Your task to perform on an android device: delete browsing data in the chrome app Image 0: 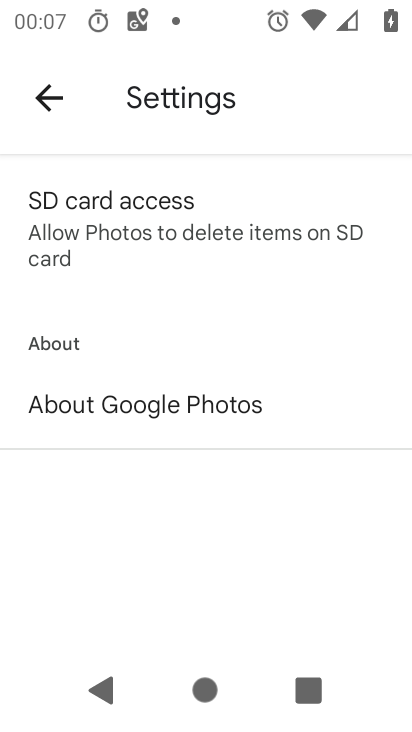
Step 0: press home button
Your task to perform on an android device: delete browsing data in the chrome app Image 1: 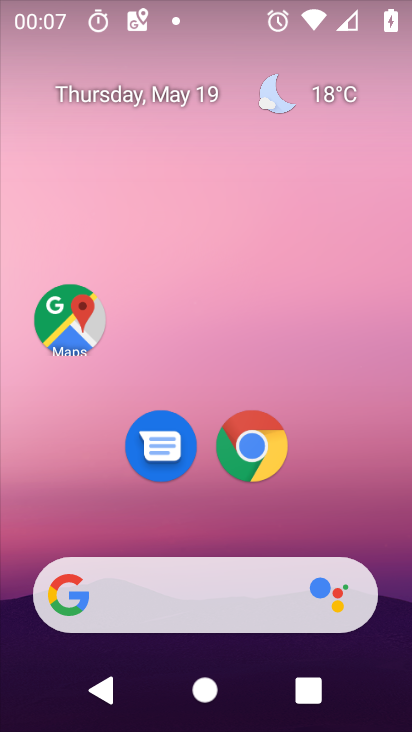
Step 1: click (242, 462)
Your task to perform on an android device: delete browsing data in the chrome app Image 2: 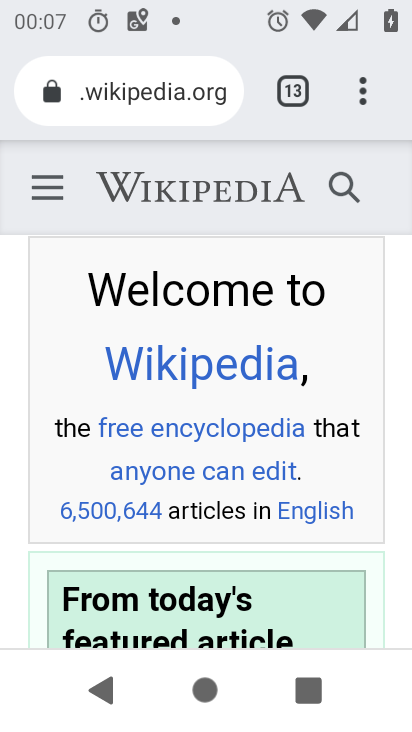
Step 2: drag from (364, 98) to (287, 476)
Your task to perform on an android device: delete browsing data in the chrome app Image 3: 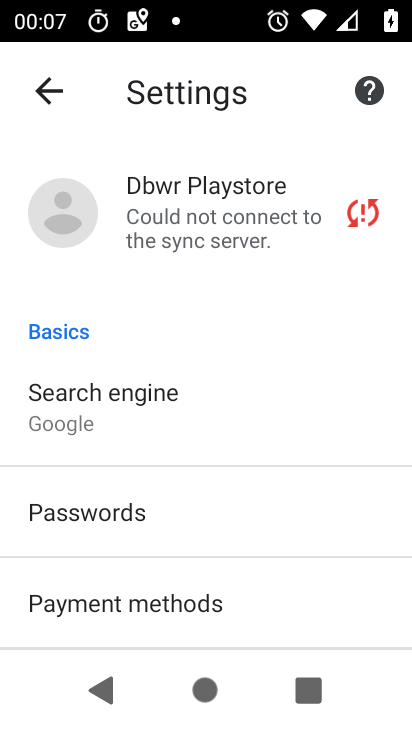
Step 3: drag from (196, 548) to (271, 303)
Your task to perform on an android device: delete browsing data in the chrome app Image 4: 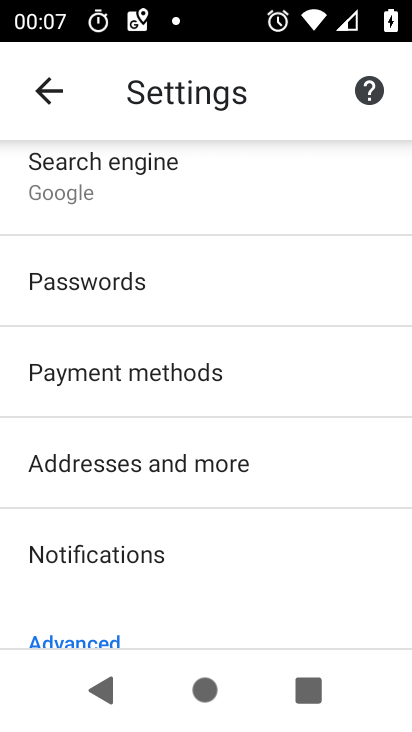
Step 4: drag from (171, 561) to (255, 283)
Your task to perform on an android device: delete browsing data in the chrome app Image 5: 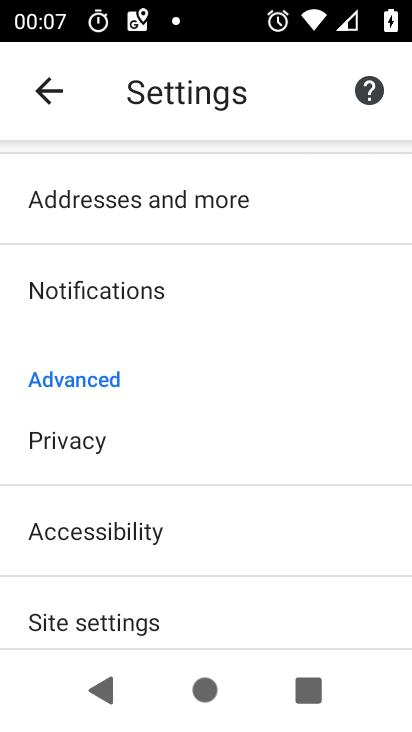
Step 5: click (87, 441)
Your task to perform on an android device: delete browsing data in the chrome app Image 6: 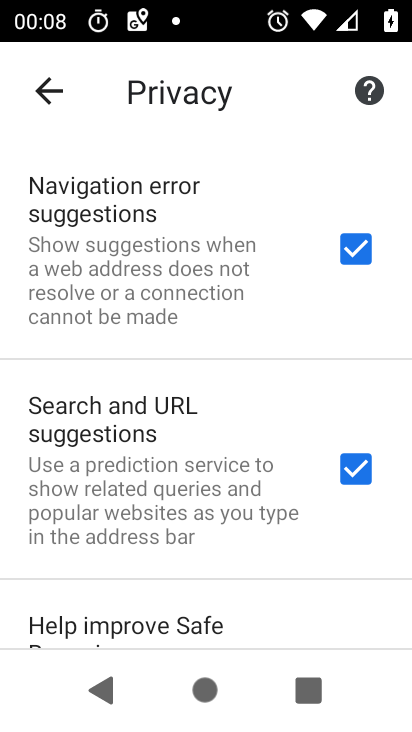
Step 6: drag from (156, 580) to (287, 242)
Your task to perform on an android device: delete browsing data in the chrome app Image 7: 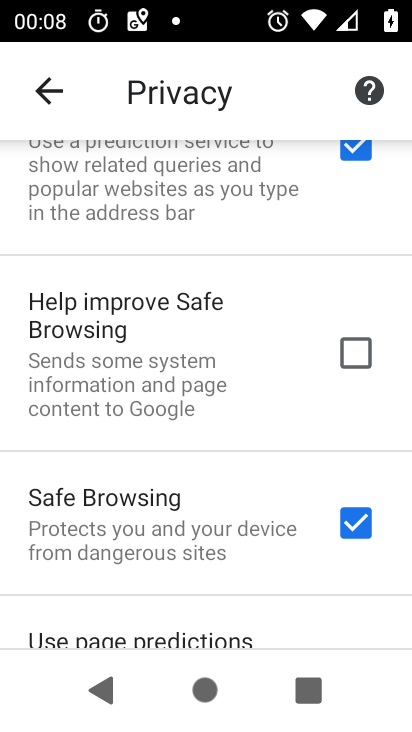
Step 7: drag from (207, 621) to (317, 196)
Your task to perform on an android device: delete browsing data in the chrome app Image 8: 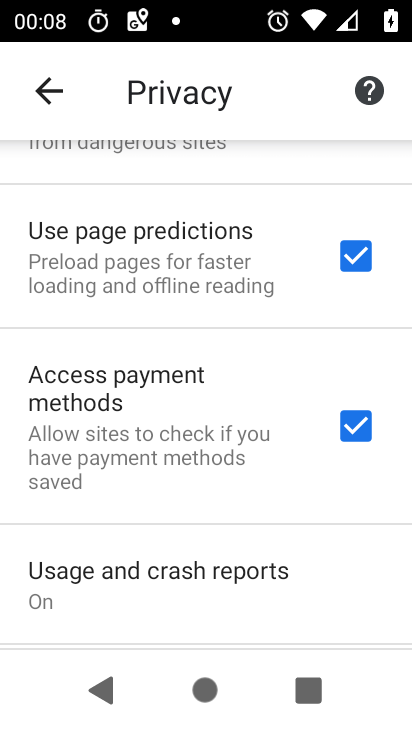
Step 8: drag from (263, 586) to (345, 180)
Your task to perform on an android device: delete browsing data in the chrome app Image 9: 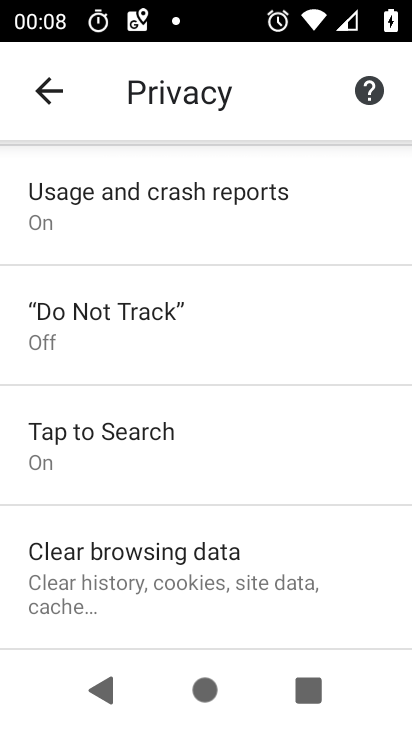
Step 9: click (203, 567)
Your task to perform on an android device: delete browsing data in the chrome app Image 10: 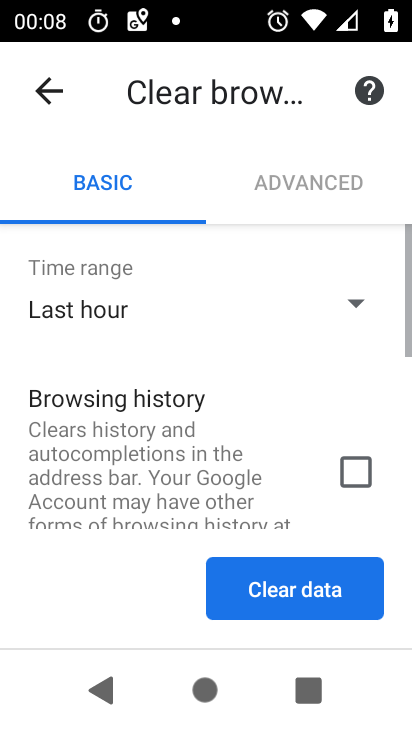
Step 10: click (359, 472)
Your task to perform on an android device: delete browsing data in the chrome app Image 11: 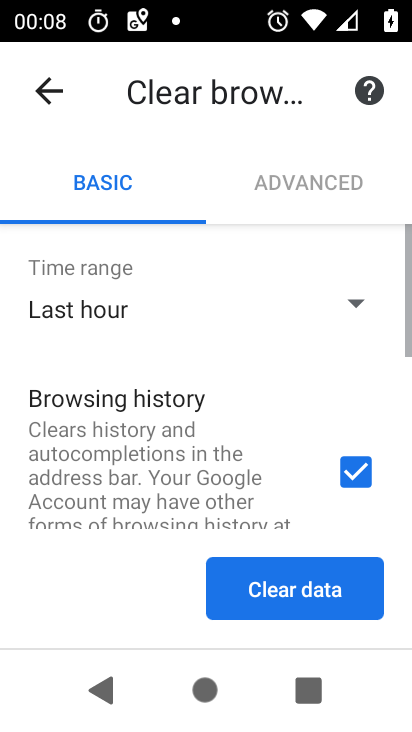
Step 11: drag from (108, 570) to (290, 133)
Your task to perform on an android device: delete browsing data in the chrome app Image 12: 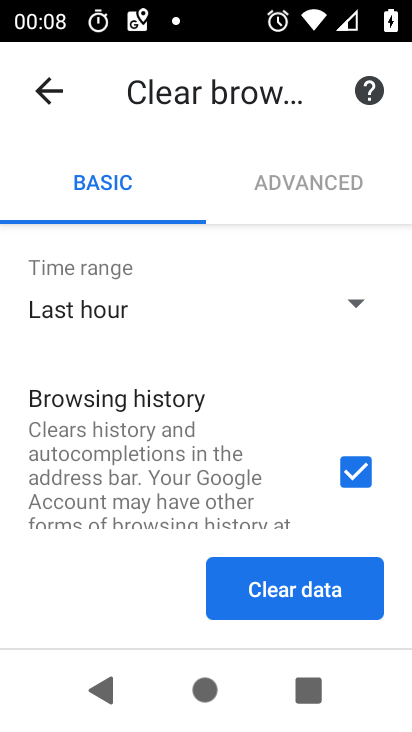
Step 12: drag from (190, 521) to (351, 105)
Your task to perform on an android device: delete browsing data in the chrome app Image 13: 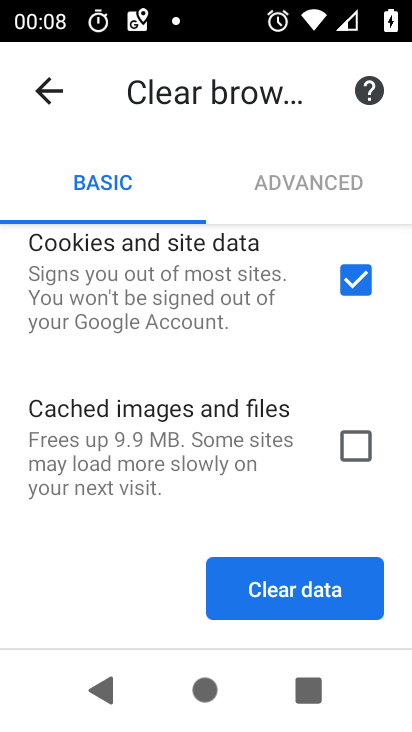
Step 13: click (360, 442)
Your task to perform on an android device: delete browsing data in the chrome app Image 14: 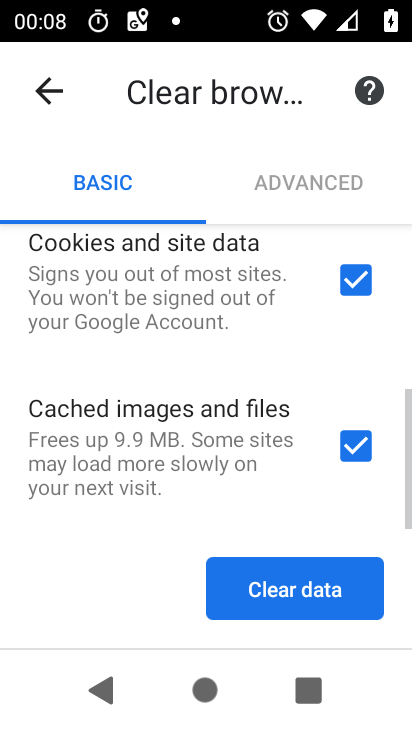
Step 14: click (322, 582)
Your task to perform on an android device: delete browsing data in the chrome app Image 15: 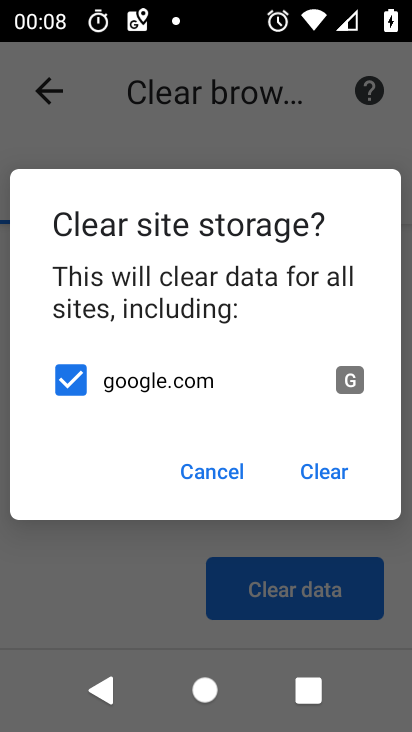
Step 15: click (330, 470)
Your task to perform on an android device: delete browsing data in the chrome app Image 16: 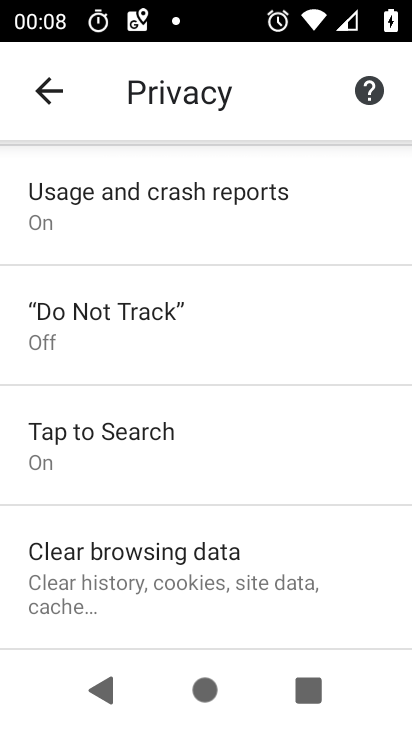
Step 16: task complete